Your task to perform on an android device: Show me recent news Image 0: 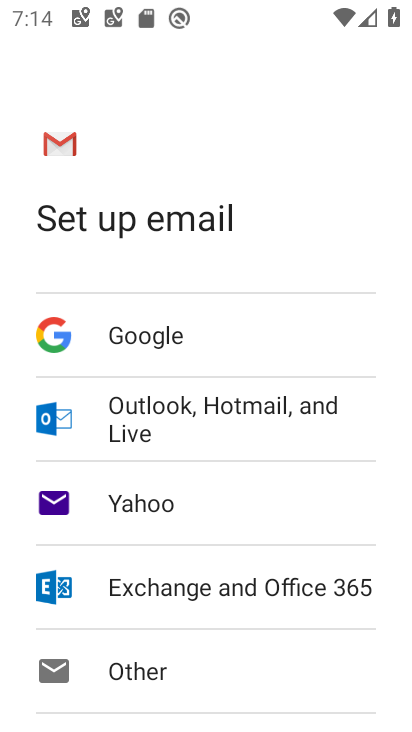
Step 0: press home button
Your task to perform on an android device: Show me recent news Image 1: 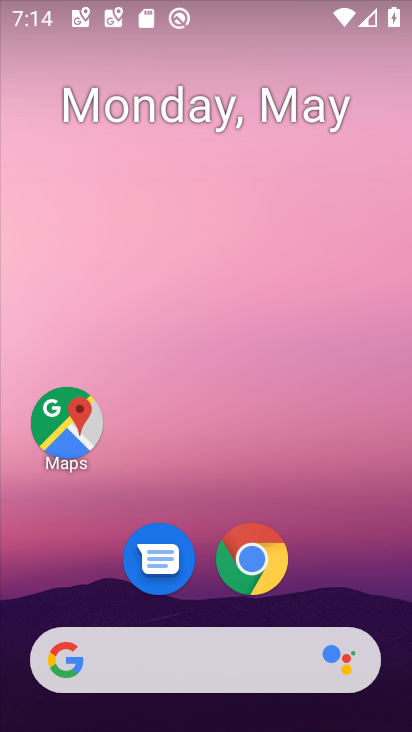
Step 1: drag from (378, 602) to (263, 6)
Your task to perform on an android device: Show me recent news Image 2: 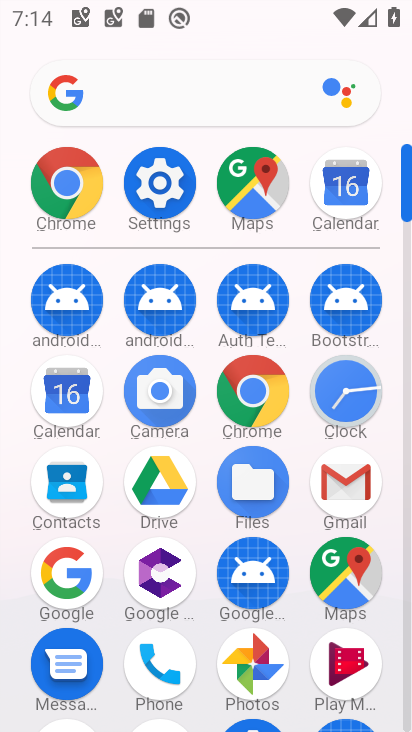
Step 2: click (41, 186)
Your task to perform on an android device: Show me recent news Image 3: 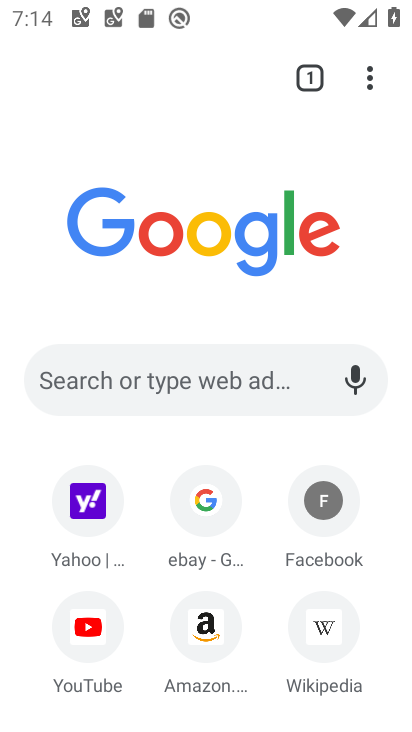
Step 3: drag from (173, 557) to (140, 24)
Your task to perform on an android device: Show me recent news Image 4: 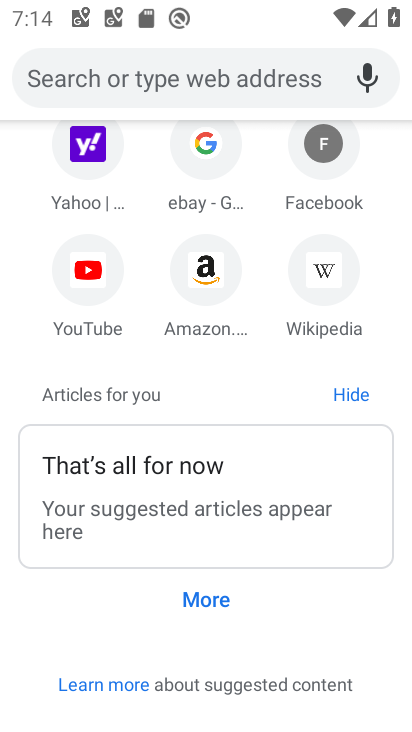
Step 4: click (210, 588)
Your task to perform on an android device: Show me recent news Image 5: 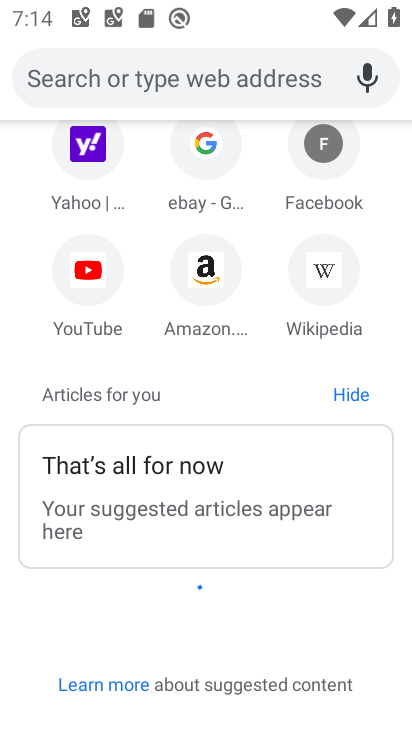
Step 5: drag from (141, 633) to (201, 130)
Your task to perform on an android device: Show me recent news Image 6: 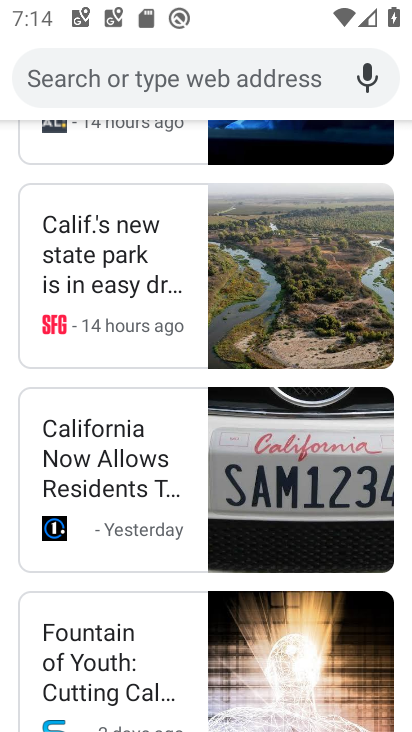
Step 6: click (121, 134)
Your task to perform on an android device: Show me recent news Image 7: 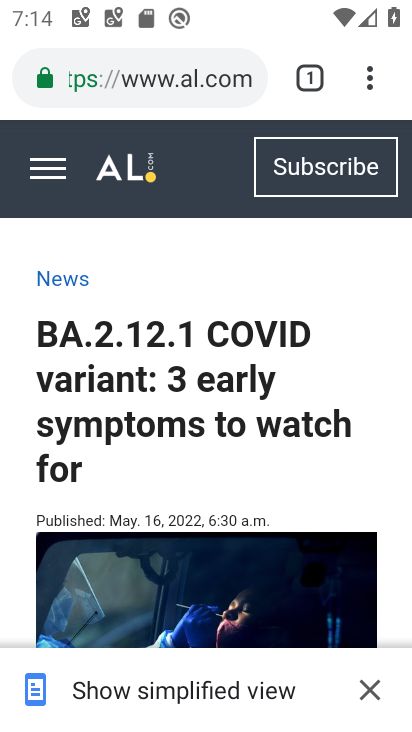
Step 7: task complete